Your task to perform on an android device: Search for pizza restaurants on Maps Image 0: 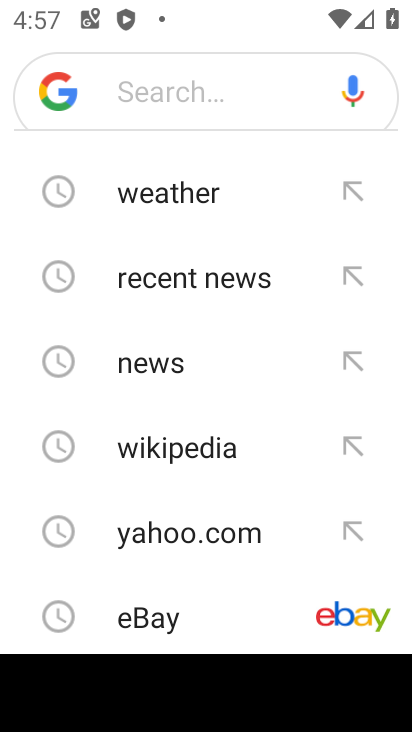
Step 0: press home button
Your task to perform on an android device: Search for pizza restaurants on Maps Image 1: 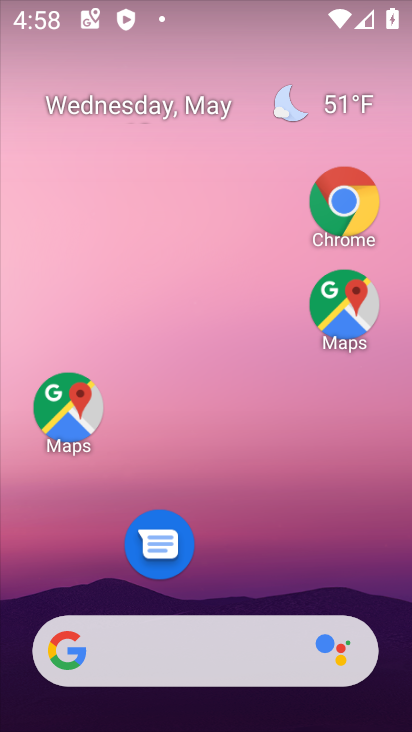
Step 1: click (342, 326)
Your task to perform on an android device: Search for pizza restaurants on Maps Image 2: 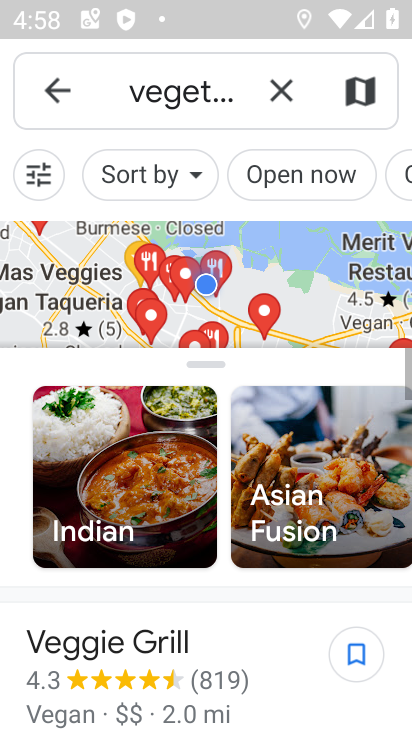
Step 2: click (285, 93)
Your task to perform on an android device: Search for pizza restaurants on Maps Image 3: 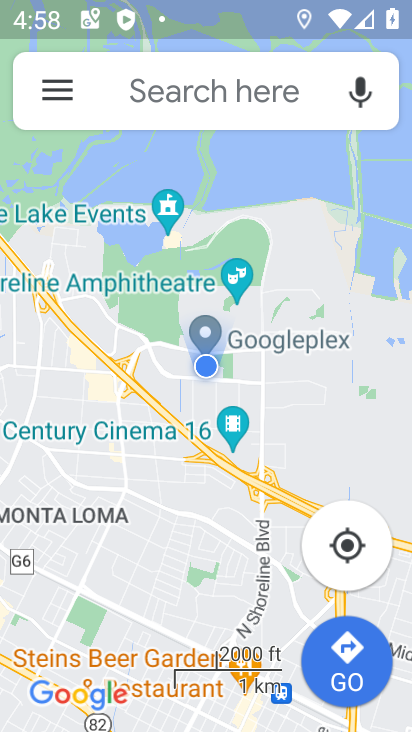
Step 3: click (192, 104)
Your task to perform on an android device: Search for pizza restaurants on Maps Image 4: 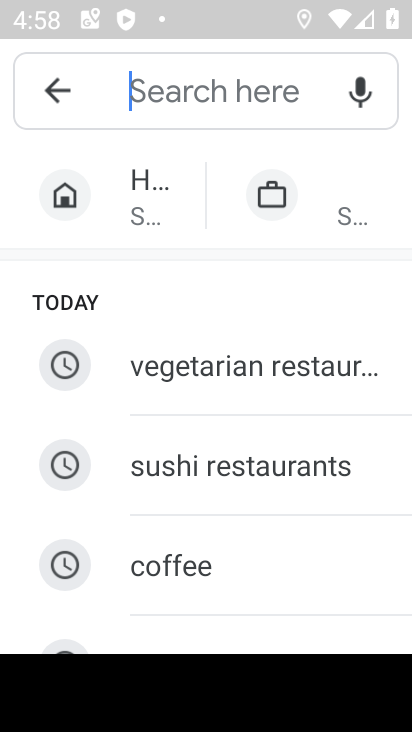
Step 4: drag from (246, 556) to (207, 252)
Your task to perform on an android device: Search for pizza restaurants on Maps Image 5: 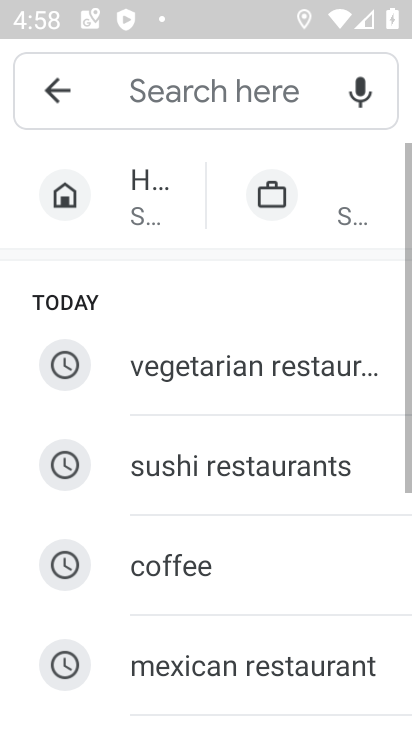
Step 5: drag from (217, 577) to (253, 312)
Your task to perform on an android device: Search for pizza restaurants on Maps Image 6: 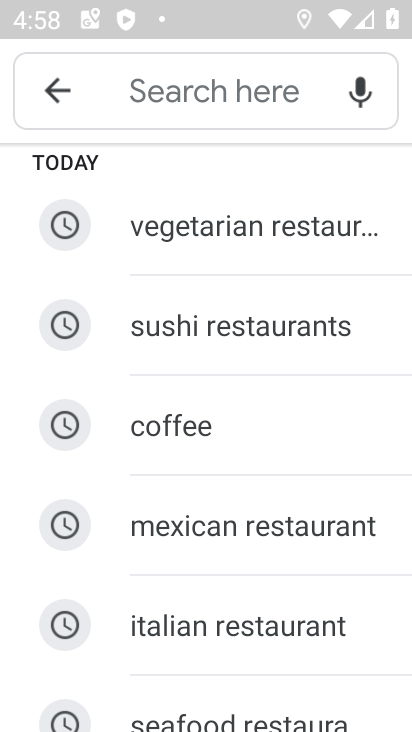
Step 6: drag from (220, 643) to (276, 367)
Your task to perform on an android device: Search for pizza restaurants on Maps Image 7: 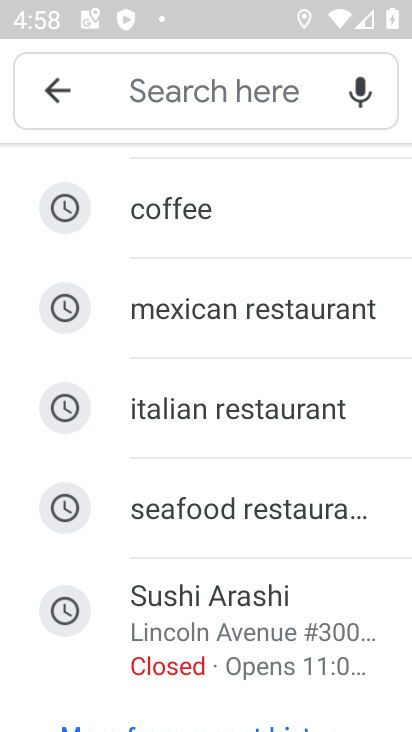
Step 7: click (215, 103)
Your task to perform on an android device: Search for pizza restaurants on Maps Image 8: 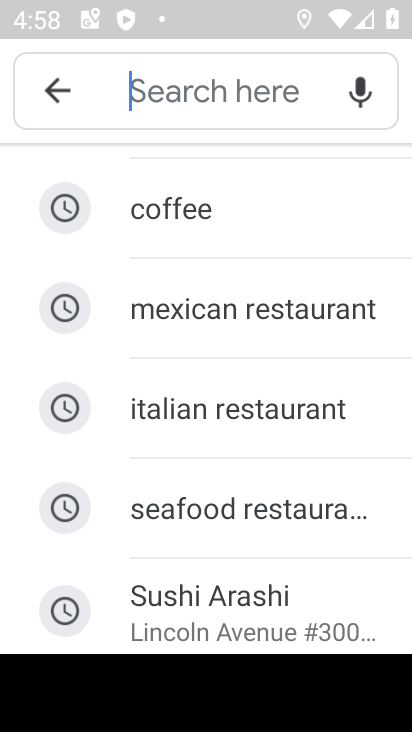
Step 8: type "pizza restaurants"
Your task to perform on an android device: Search for pizza restaurants on Maps Image 9: 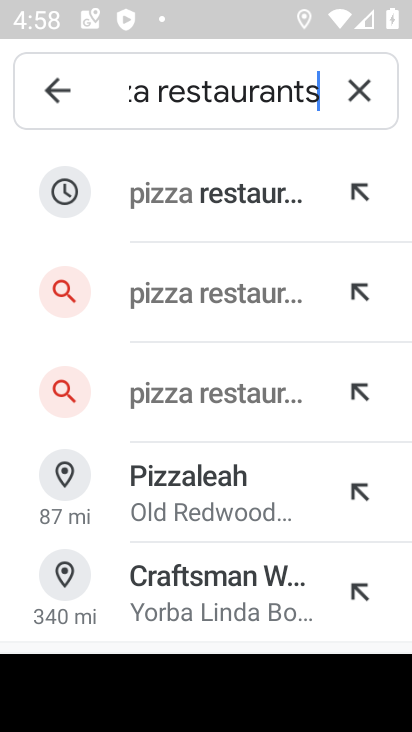
Step 9: click (261, 198)
Your task to perform on an android device: Search for pizza restaurants on Maps Image 10: 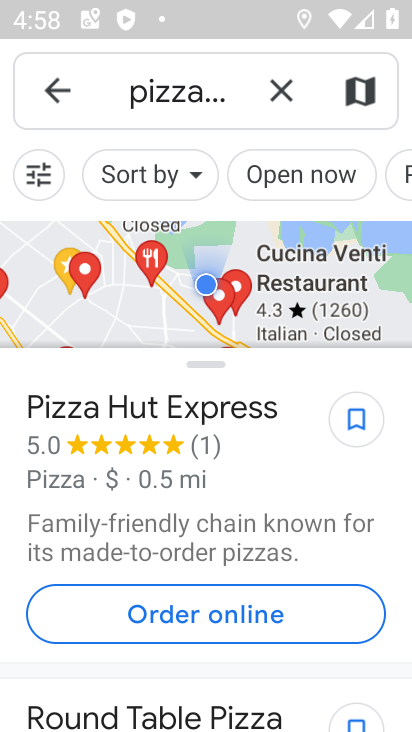
Step 10: task complete